Your task to perform on an android device: turn off smart reply in the gmail app Image 0: 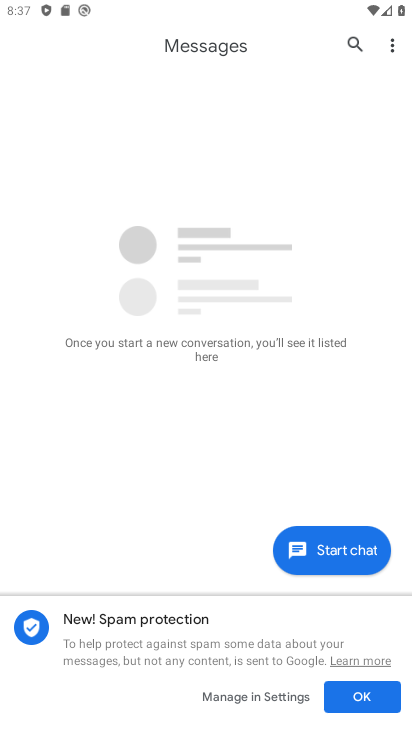
Step 0: press home button
Your task to perform on an android device: turn off smart reply in the gmail app Image 1: 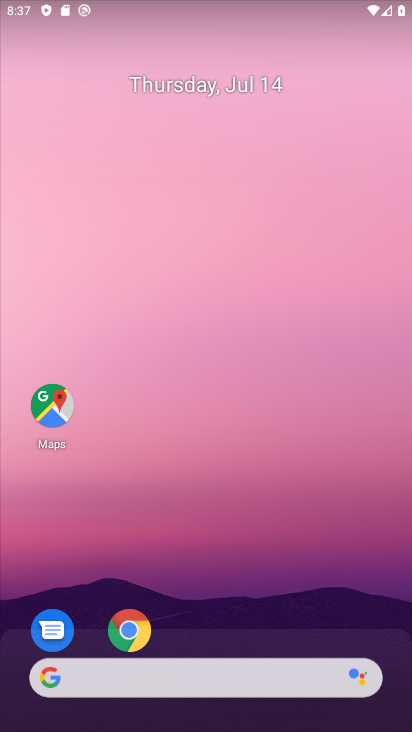
Step 1: drag from (318, 618) to (255, 59)
Your task to perform on an android device: turn off smart reply in the gmail app Image 2: 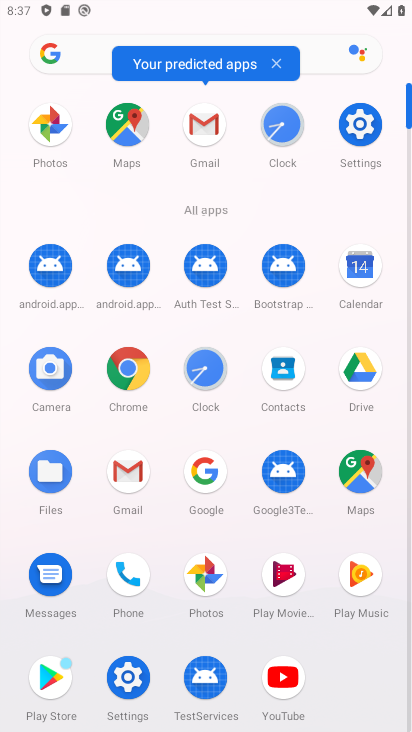
Step 2: click (213, 124)
Your task to perform on an android device: turn off smart reply in the gmail app Image 3: 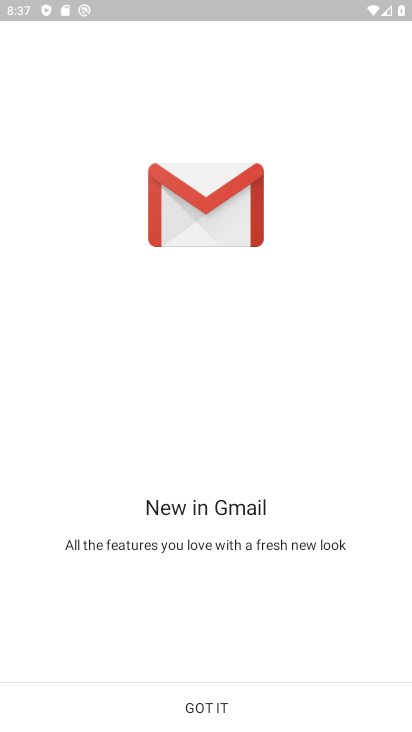
Step 3: click (227, 704)
Your task to perform on an android device: turn off smart reply in the gmail app Image 4: 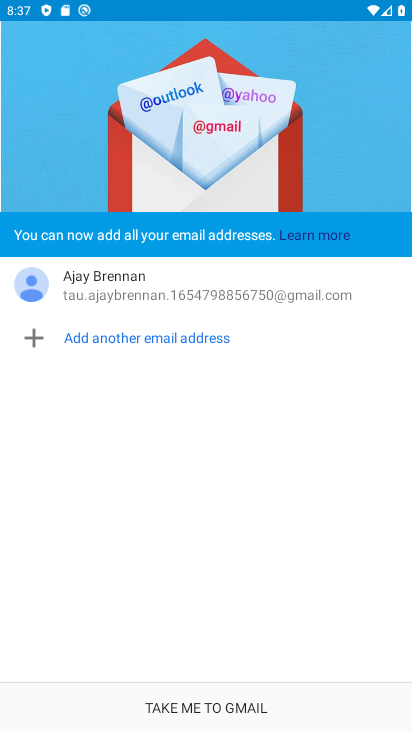
Step 4: click (226, 701)
Your task to perform on an android device: turn off smart reply in the gmail app Image 5: 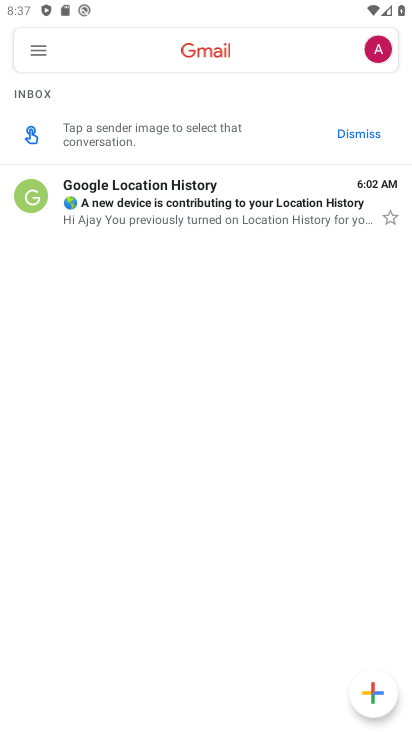
Step 5: click (40, 52)
Your task to perform on an android device: turn off smart reply in the gmail app Image 6: 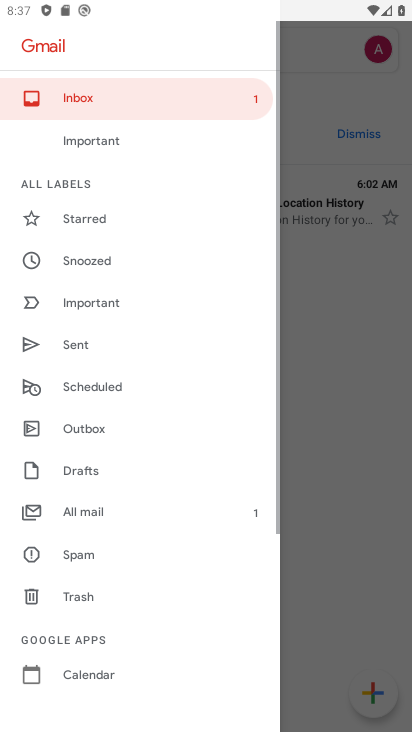
Step 6: drag from (141, 628) to (105, 163)
Your task to perform on an android device: turn off smart reply in the gmail app Image 7: 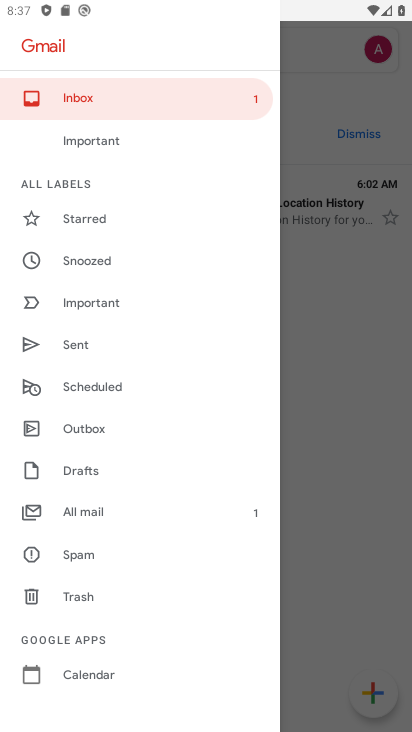
Step 7: drag from (74, 612) to (13, 164)
Your task to perform on an android device: turn off smart reply in the gmail app Image 8: 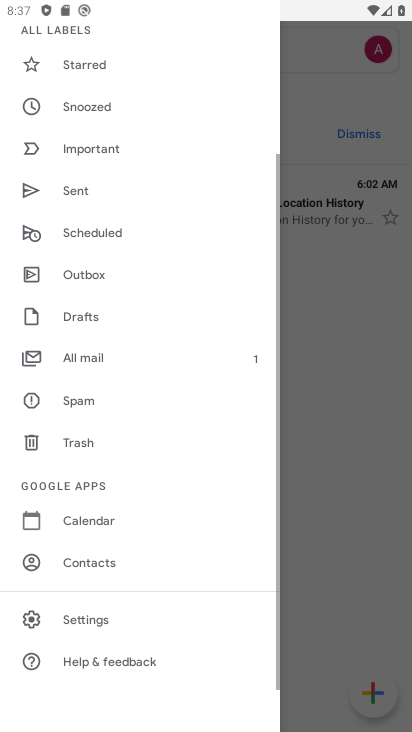
Step 8: click (101, 616)
Your task to perform on an android device: turn off smart reply in the gmail app Image 9: 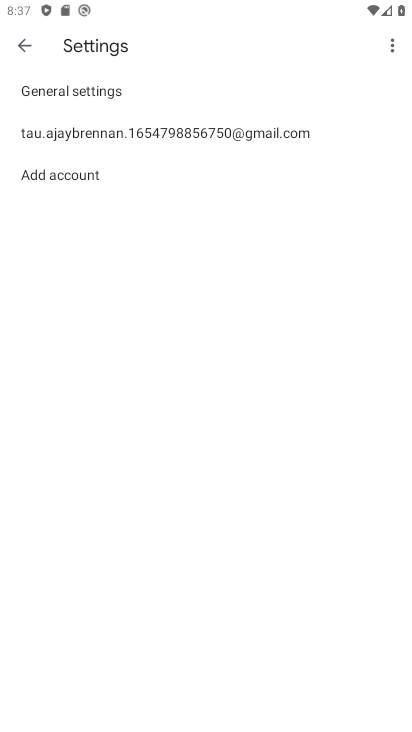
Step 9: click (35, 129)
Your task to perform on an android device: turn off smart reply in the gmail app Image 10: 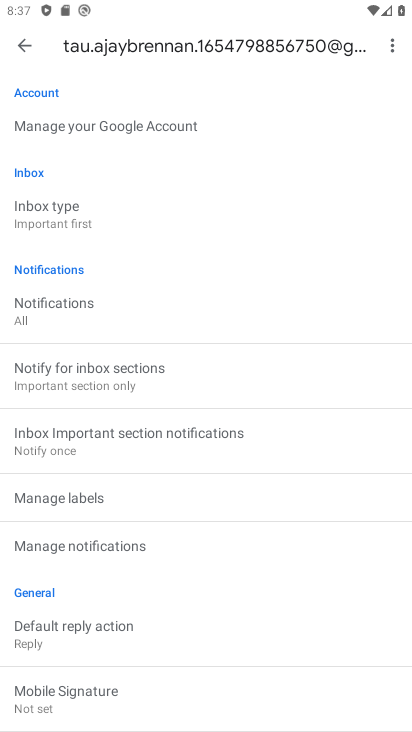
Step 10: drag from (150, 621) to (128, 129)
Your task to perform on an android device: turn off smart reply in the gmail app Image 11: 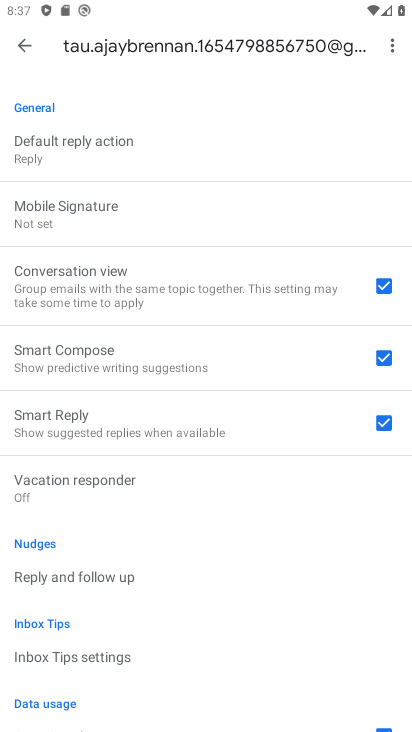
Step 11: click (377, 417)
Your task to perform on an android device: turn off smart reply in the gmail app Image 12: 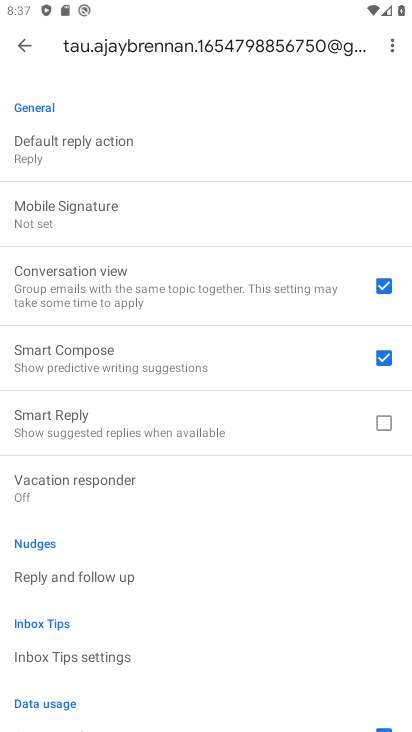
Step 12: task complete